Your task to perform on an android device: Go to internet settings Image 0: 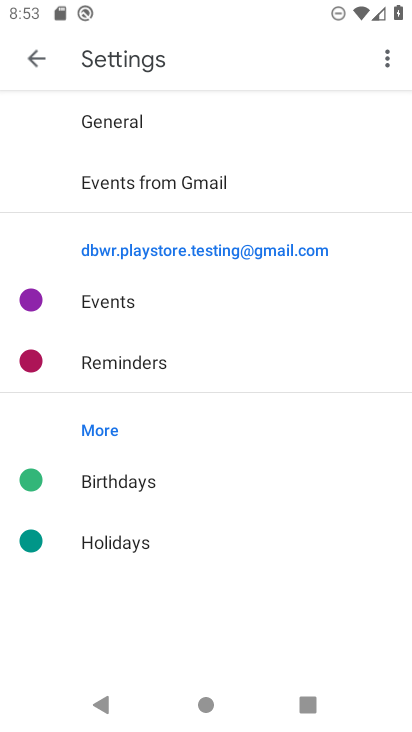
Step 0: press home button
Your task to perform on an android device: Go to internet settings Image 1: 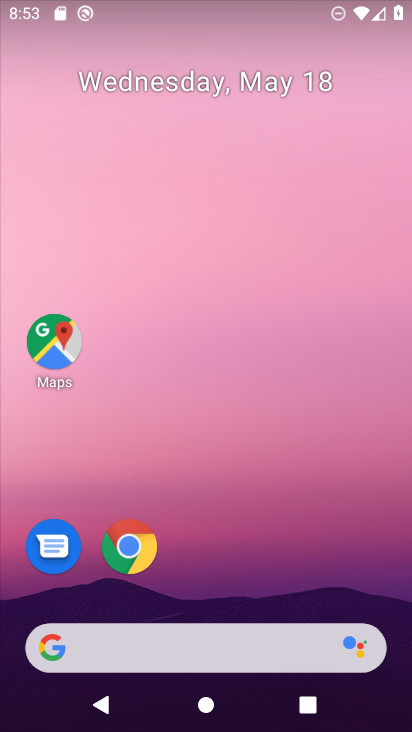
Step 1: drag from (242, 686) to (356, 338)
Your task to perform on an android device: Go to internet settings Image 2: 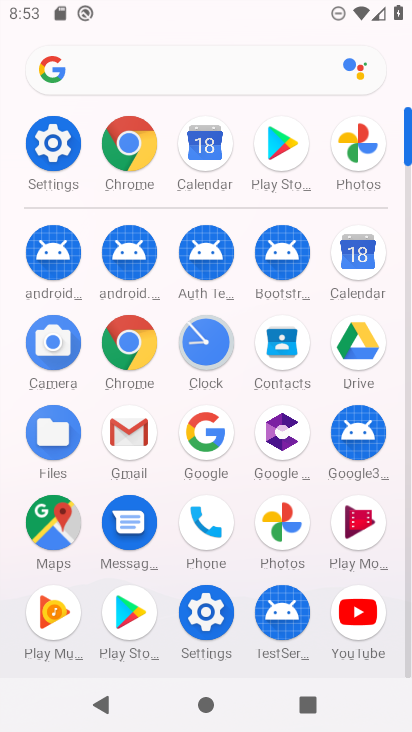
Step 2: click (55, 149)
Your task to perform on an android device: Go to internet settings Image 3: 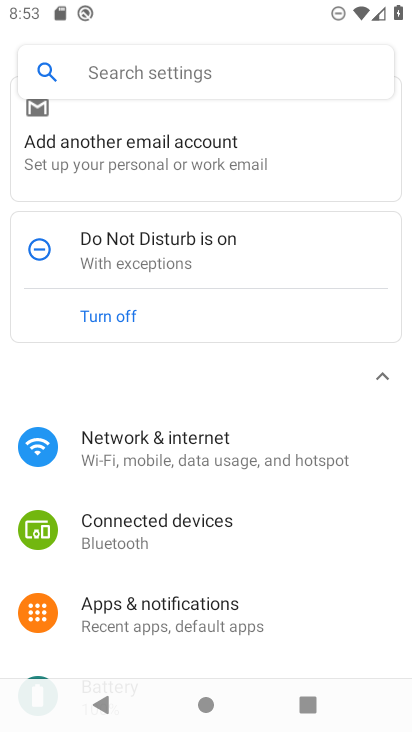
Step 3: click (126, 447)
Your task to perform on an android device: Go to internet settings Image 4: 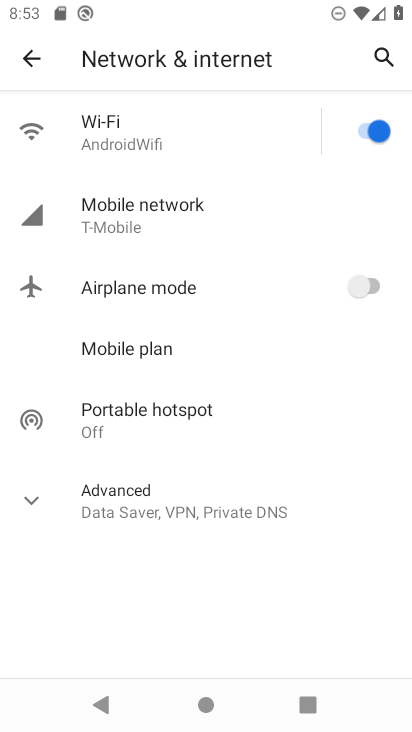
Step 4: task complete